Your task to perform on an android device: turn off data saver in the chrome app Image 0: 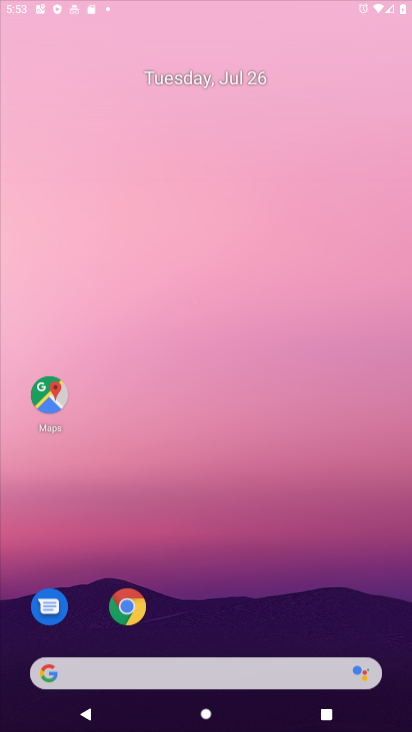
Step 0: press home button
Your task to perform on an android device: turn off data saver in the chrome app Image 1: 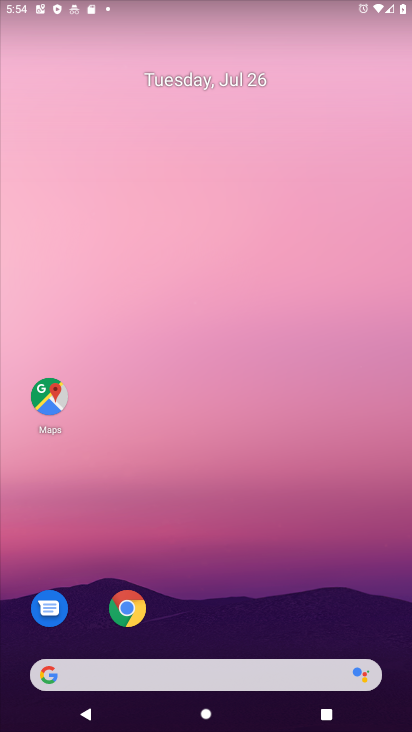
Step 1: drag from (238, 603) to (287, 119)
Your task to perform on an android device: turn off data saver in the chrome app Image 2: 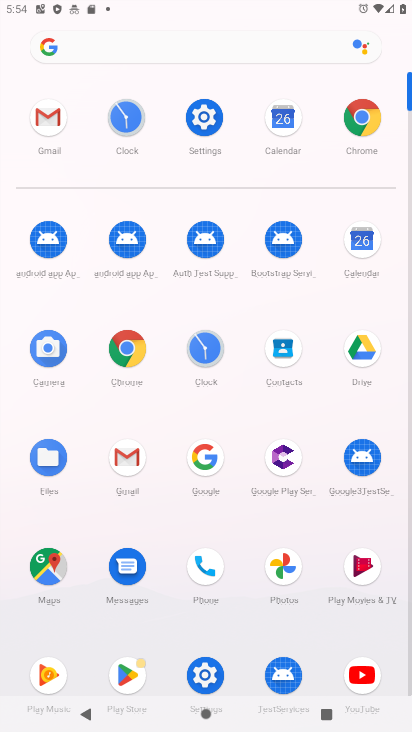
Step 2: click (364, 125)
Your task to perform on an android device: turn off data saver in the chrome app Image 3: 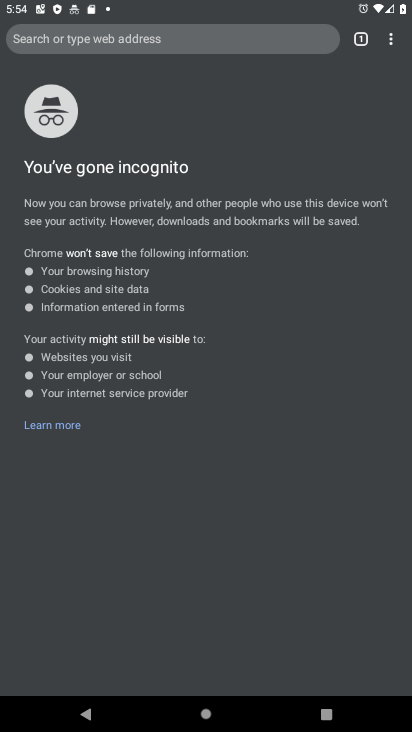
Step 3: drag from (393, 38) to (267, 288)
Your task to perform on an android device: turn off data saver in the chrome app Image 4: 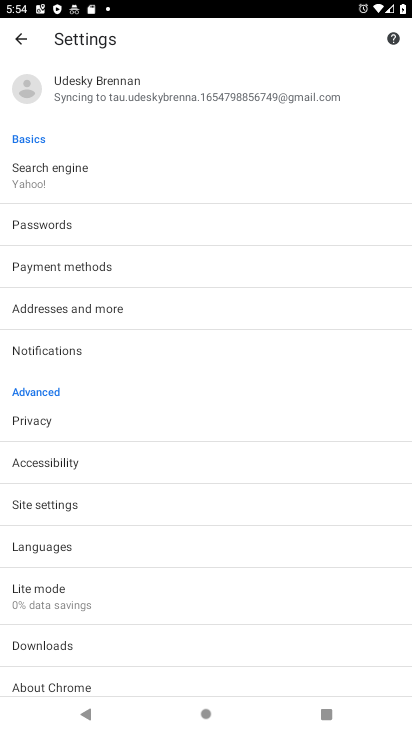
Step 4: click (54, 598)
Your task to perform on an android device: turn off data saver in the chrome app Image 5: 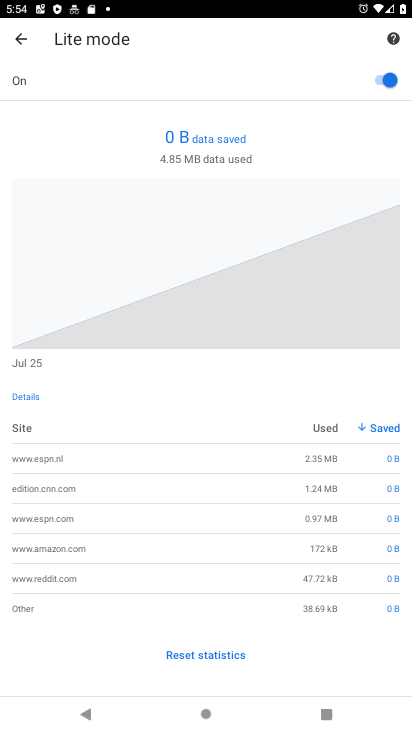
Step 5: click (386, 81)
Your task to perform on an android device: turn off data saver in the chrome app Image 6: 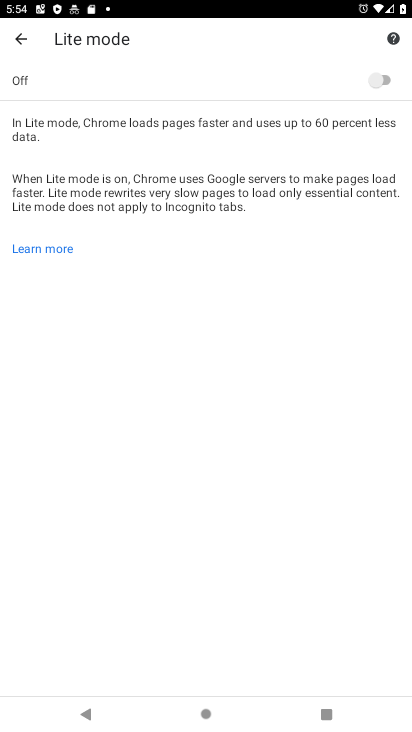
Step 6: task complete